Your task to perform on an android device: Open ESPN.com Image 0: 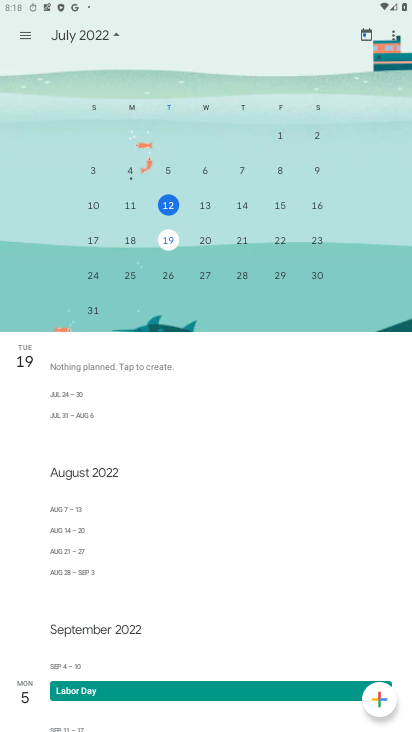
Step 0: press back button
Your task to perform on an android device: Open ESPN.com Image 1: 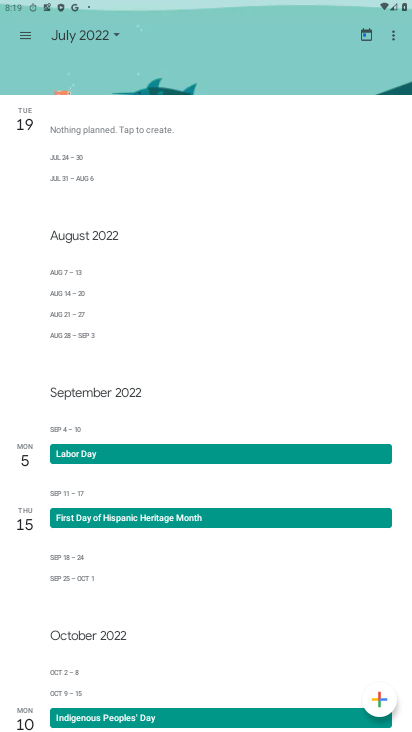
Step 1: press home button
Your task to perform on an android device: Open ESPN.com Image 2: 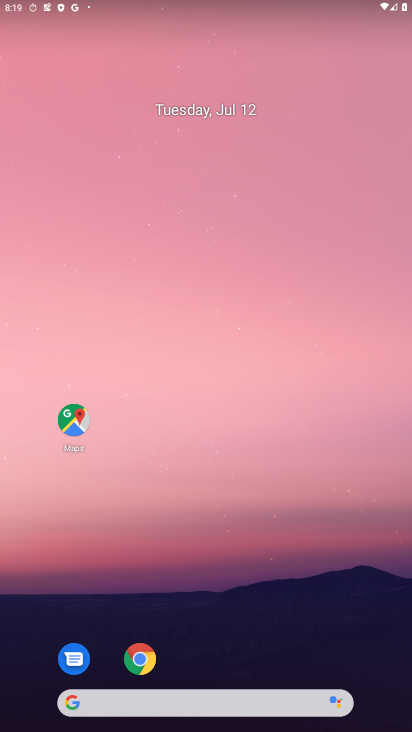
Step 2: drag from (252, 638) to (102, 193)
Your task to perform on an android device: Open ESPN.com Image 3: 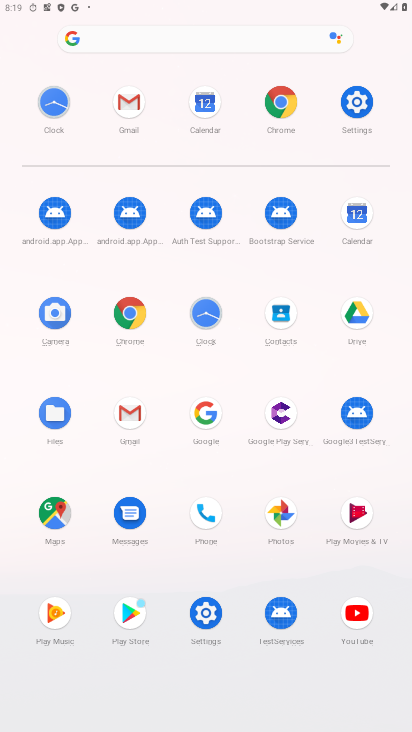
Step 3: click (278, 109)
Your task to perform on an android device: Open ESPN.com Image 4: 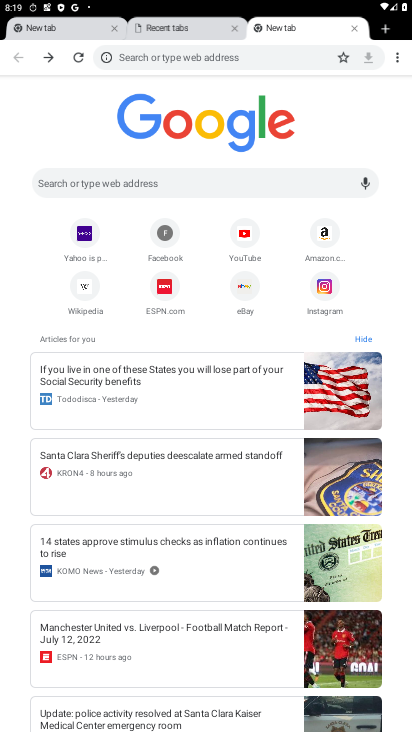
Step 4: click (163, 287)
Your task to perform on an android device: Open ESPN.com Image 5: 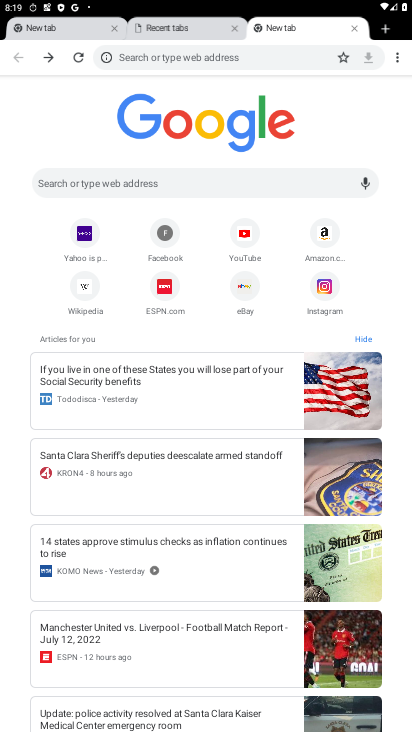
Step 5: click (165, 288)
Your task to perform on an android device: Open ESPN.com Image 6: 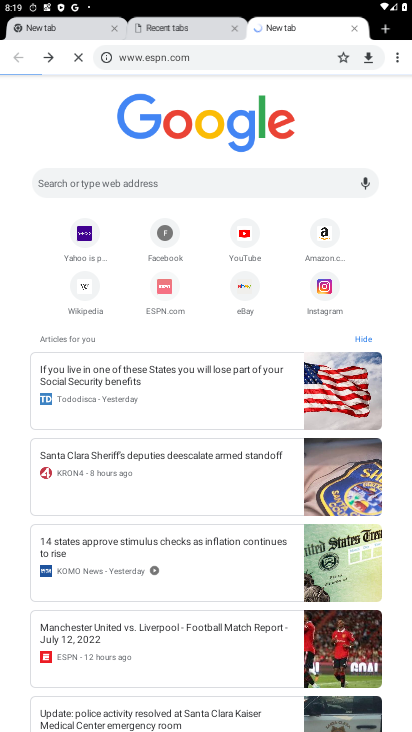
Step 6: click (167, 290)
Your task to perform on an android device: Open ESPN.com Image 7: 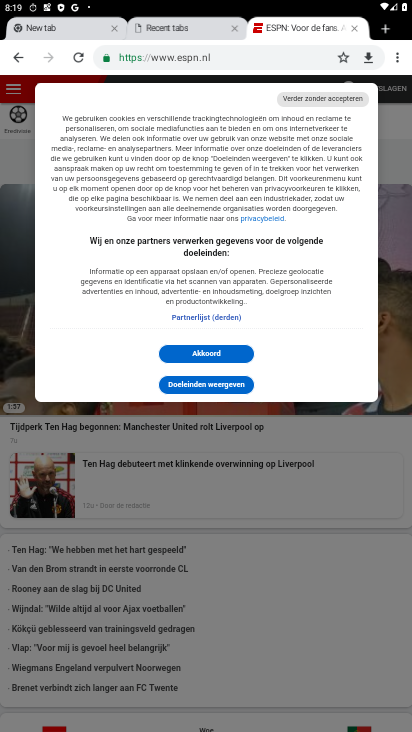
Step 7: click (215, 352)
Your task to perform on an android device: Open ESPN.com Image 8: 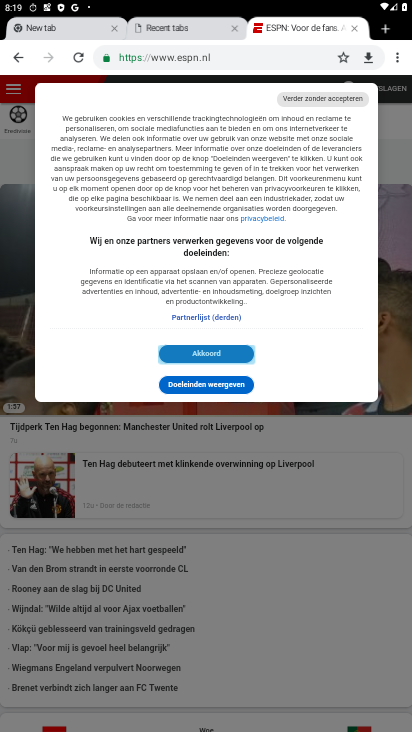
Step 8: click (215, 352)
Your task to perform on an android device: Open ESPN.com Image 9: 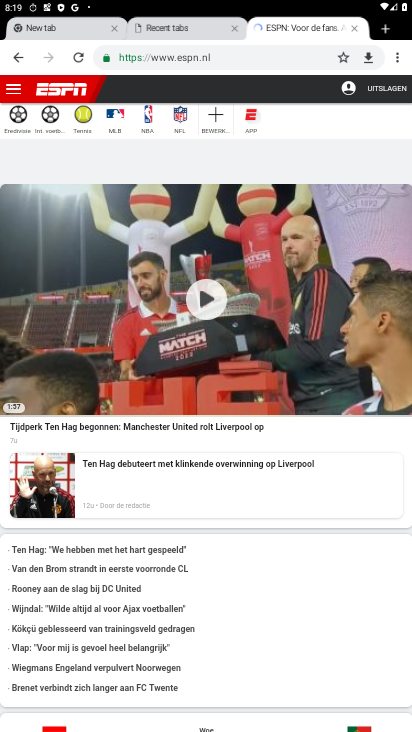
Step 9: task complete